Your task to perform on an android device: Go to privacy settings Image 0: 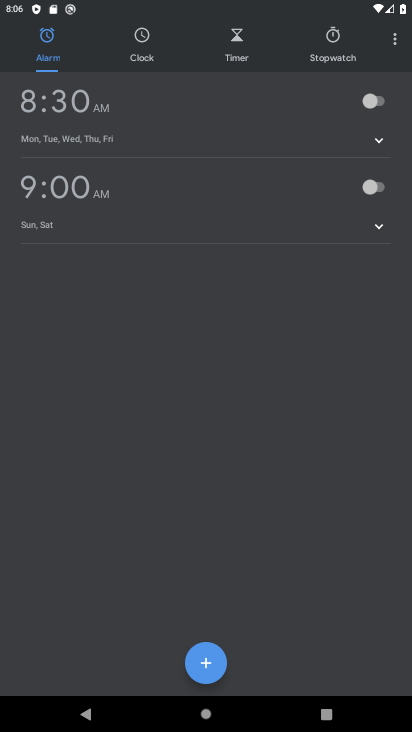
Step 0: press home button
Your task to perform on an android device: Go to privacy settings Image 1: 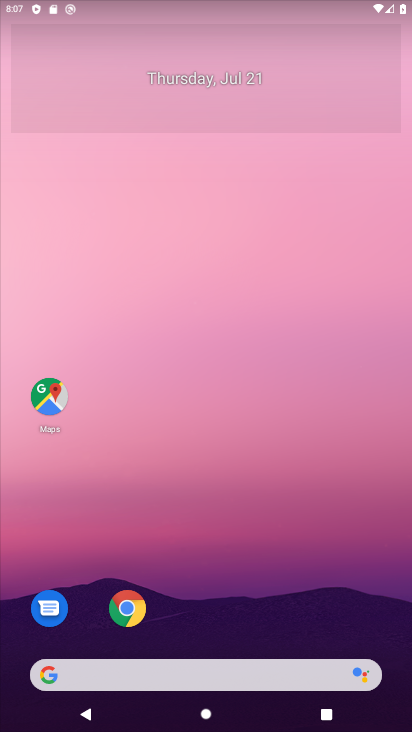
Step 1: drag from (17, 705) to (176, 250)
Your task to perform on an android device: Go to privacy settings Image 2: 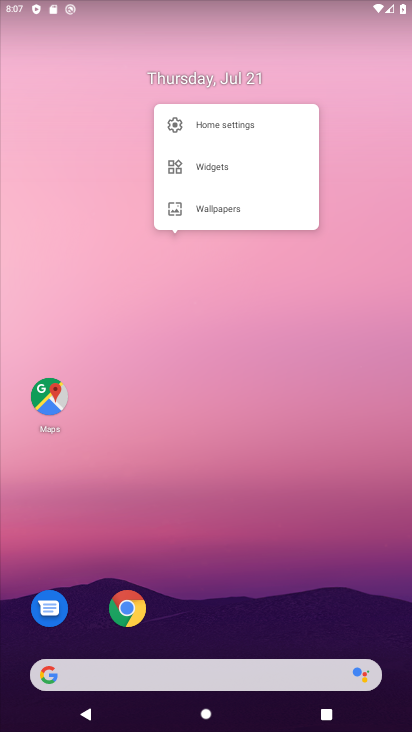
Step 2: drag from (33, 683) to (155, 108)
Your task to perform on an android device: Go to privacy settings Image 3: 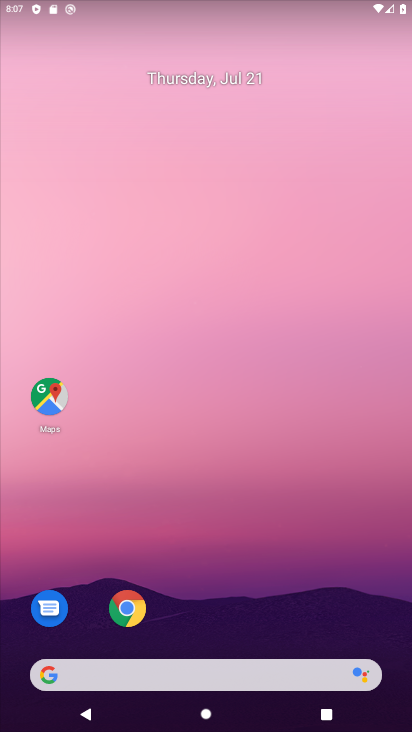
Step 3: drag from (33, 708) to (185, 94)
Your task to perform on an android device: Go to privacy settings Image 4: 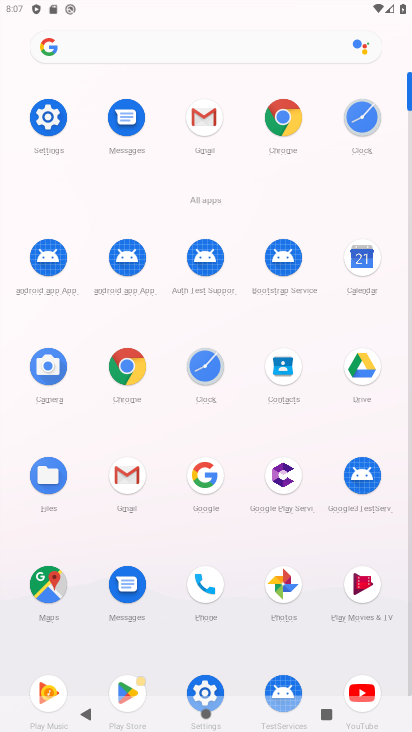
Step 4: click (198, 688)
Your task to perform on an android device: Go to privacy settings Image 5: 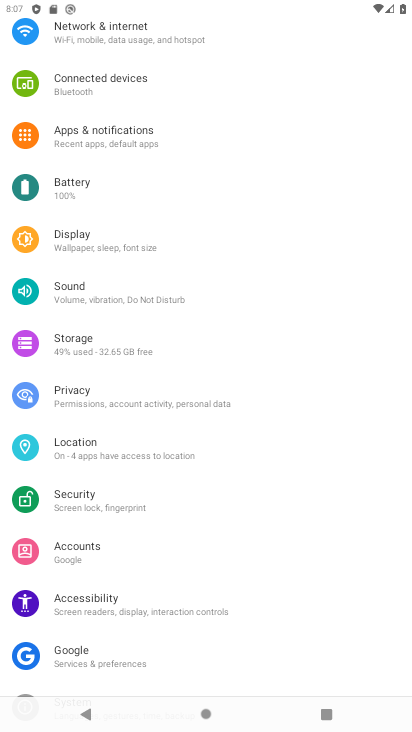
Step 5: click (89, 400)
Your task to perform on an android device: Go to privacy settings Image 6: 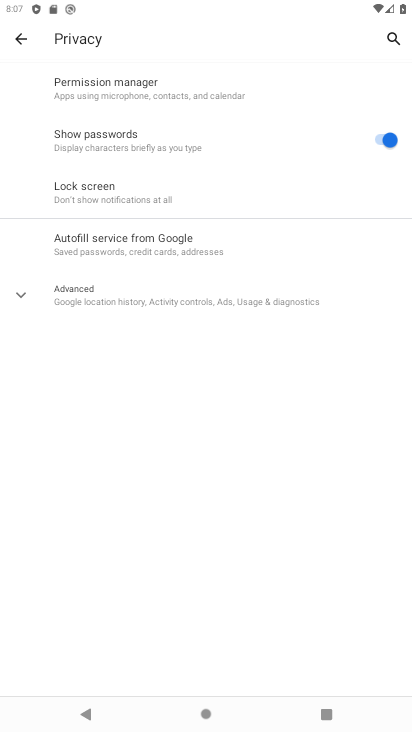
Step 6: task complete